Your task to perform on an android device: find snoozed emails in the gmail app Image 0: 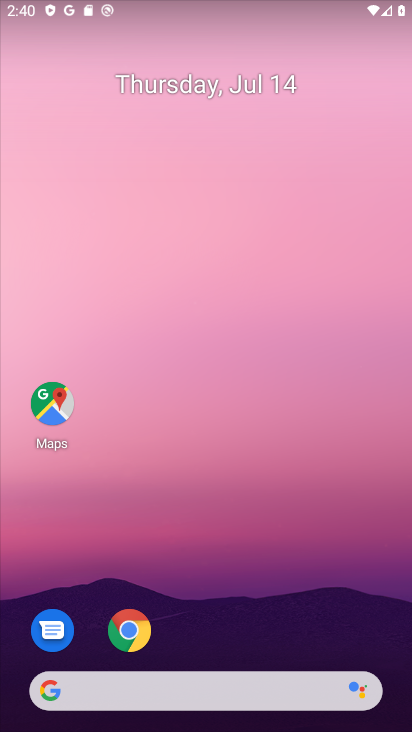
Step 0: click (407, 420)
Your task to perform on an android device: find snoozed emails in the gmail app Image 1: 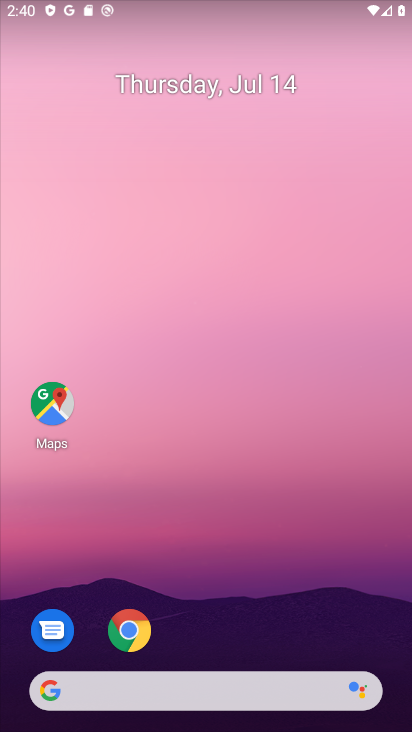
Step 1: drag from (259, 643) to (184, 253)
Your task to perform on an android device: find snoozed emails in the gmail app Image 2: 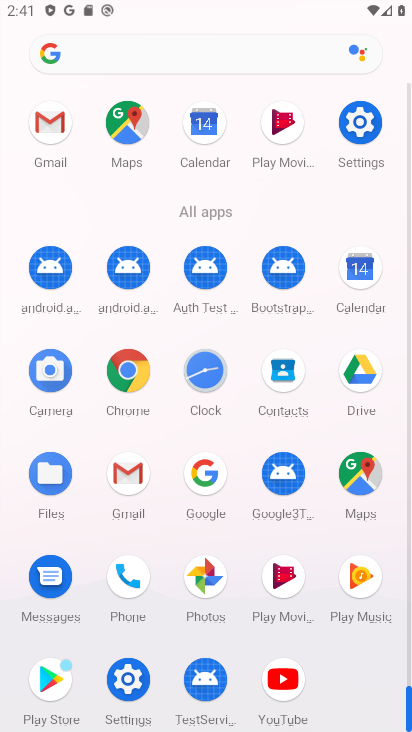
Step 2: click (111, 471)
Your task to perform on an android device: find snoozed emails in the gmail app Image 3: 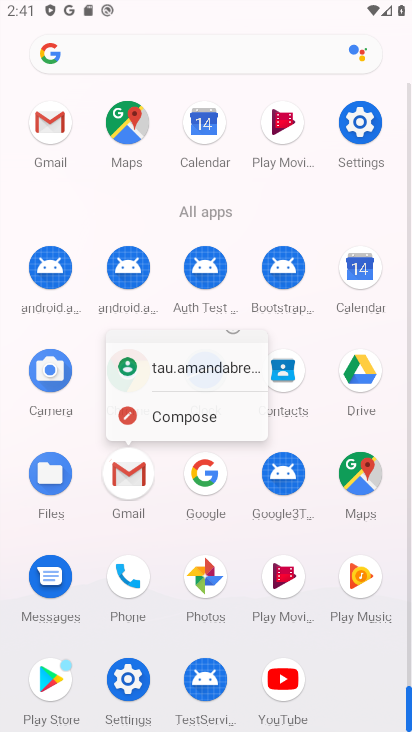
Step 3: click (114, 471)
Your task to perform on an android device: find snoozed emails in the gmail app Image 4: 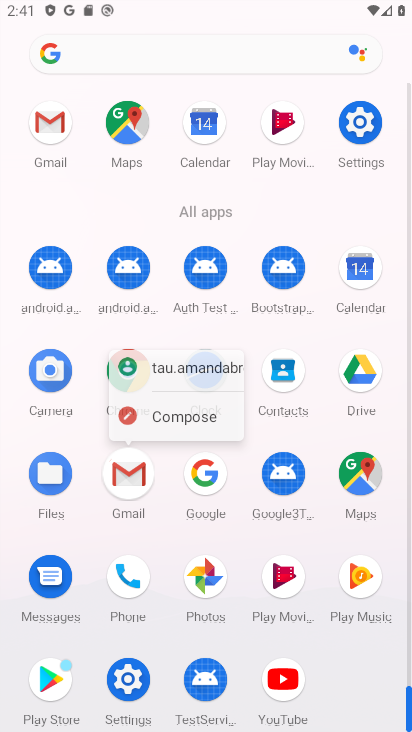
Step 4: click (117, 472)
Your task to perform on an android device: find snoozed emails in the gmail app Image 5: 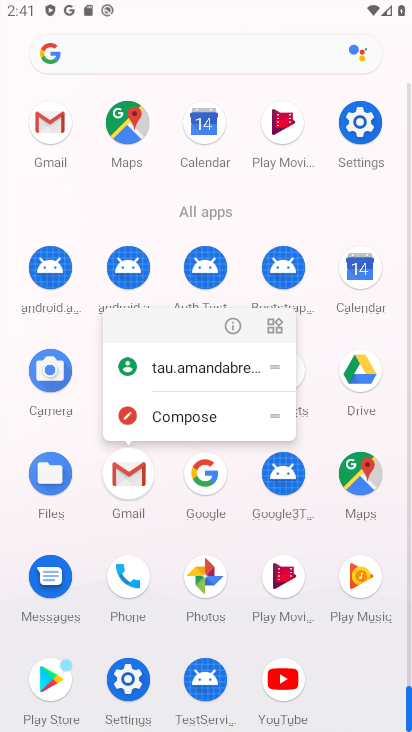
Step 5: click (120, 471)
Your task to perform on an android device: find snoozed emails in the gmail app Image 6: 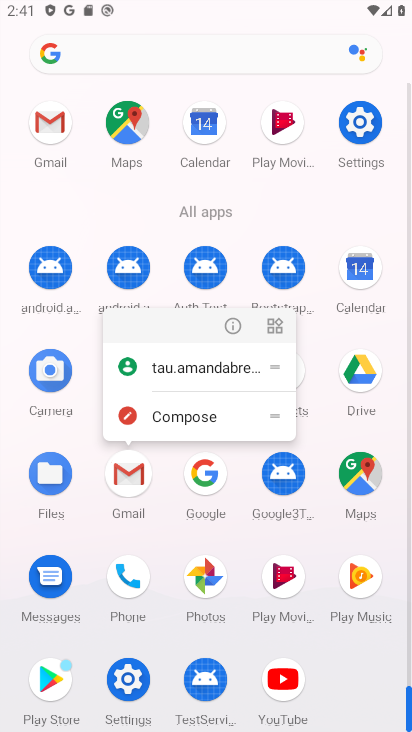
Step 6: click (126, 469)
Your task to perform on an android device: find snoozed emails in the gmail app Image 7: 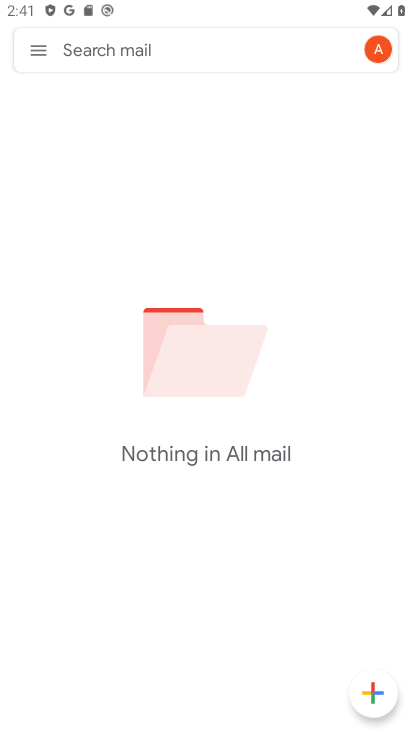
Step 7: click (119, 459)
Your task to perform on an android device: find snoozed emails in the gmail app Image 8: 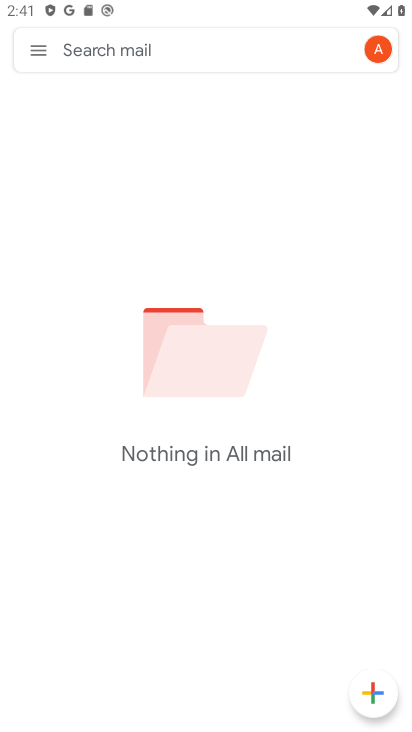
Step 8: click (121, 460)
Your task to perform on an android device: find snoozed emails in the gmail app Image 9: 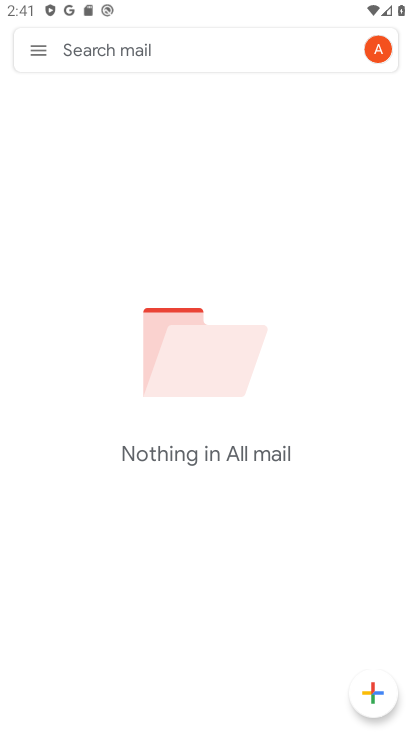
Step 9: click (44, 40)
Your task to perform on an android device: find snoozed emails in the gmail app Image 10: 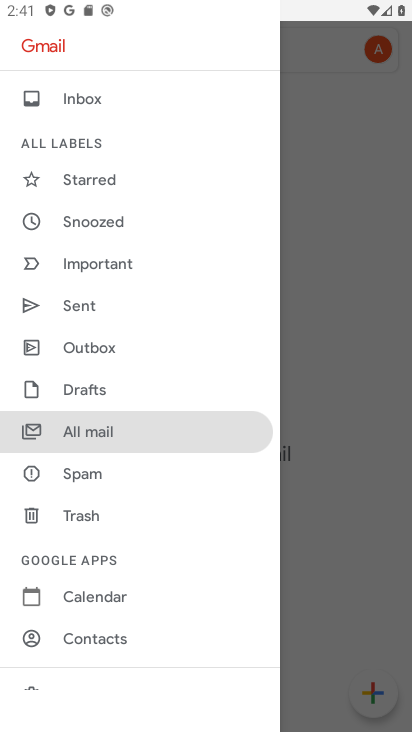
Step 10: click (101, 211)
Your task to perform on an android device: find snoozed emails in the gmail app Image 11: 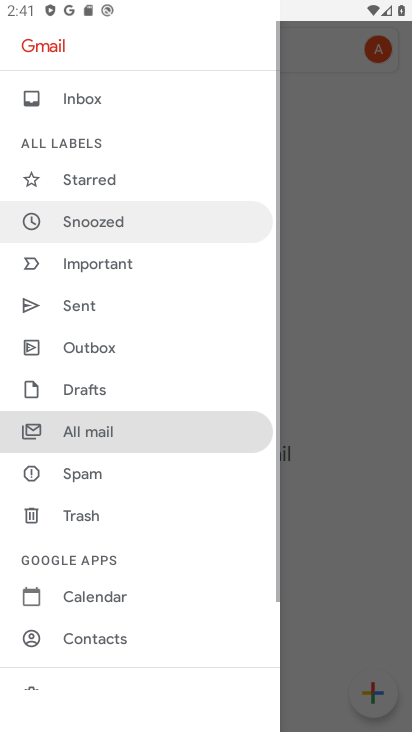
Step 11: click (101, 218)
Your task to perform on an android device: find snoozed emails in the gmail app Image 12: 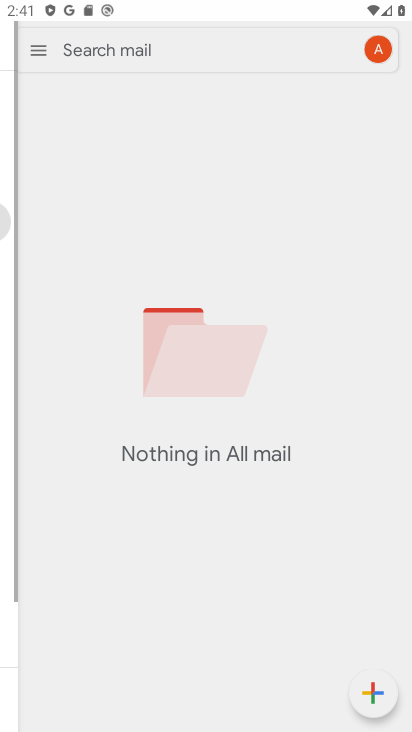
Step 12: click (102, 220)
Your task to perform on an android device: find snoozed emails in the gmail app Image 13: 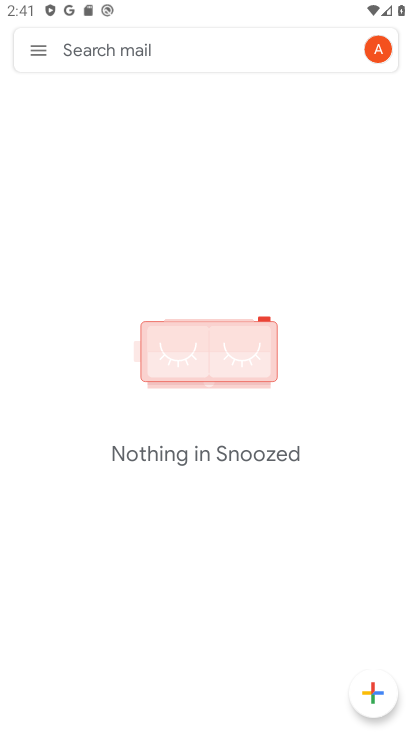
Step 13: press back button
Your task to perform on an android device: find snoozed emails in the gmail app Image 14: 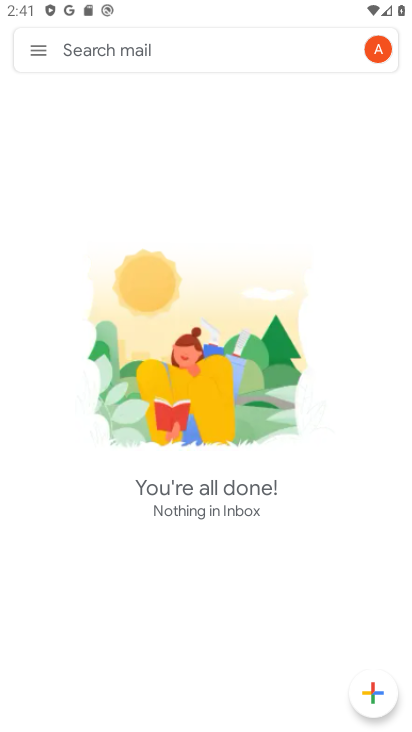
Step 14: click (36, 64)
Your task to perform on an android device: find snoozed emails in the gmail app Image 15: 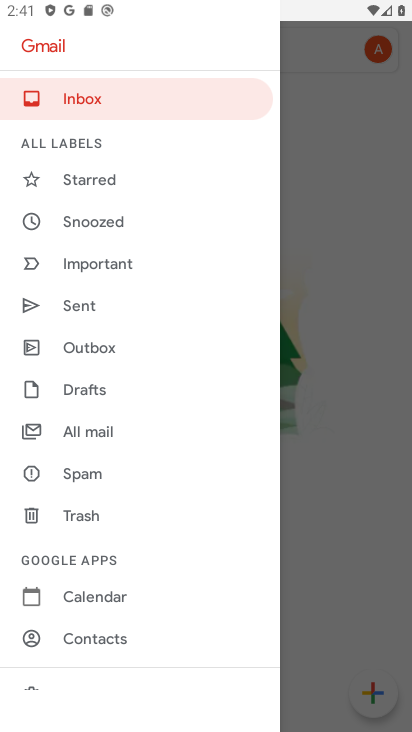
Step 15: click (95, 230)
Your task to perform on an android device: find snoozed emails in the gmail app Image 16: 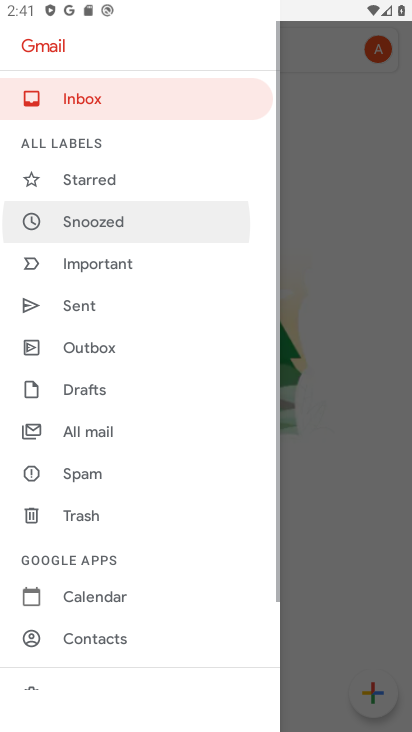
Step 16: click (96, 229)
Your task to perform on an android device: find snoozed emails in the gmail app Image 17: 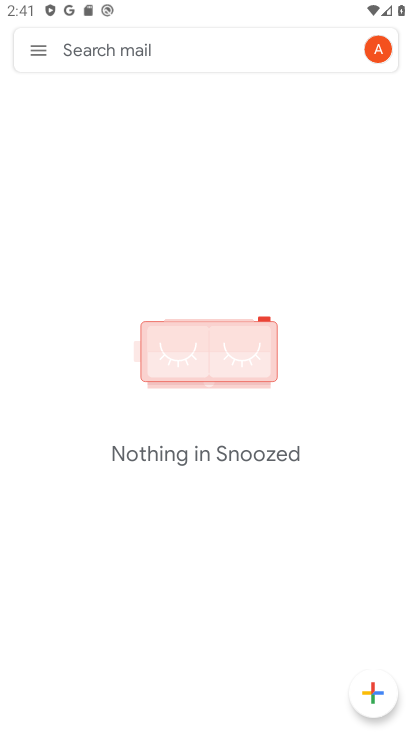
Step 17: task complete